Your task to perform on an android device: Go to Maps Image 0: 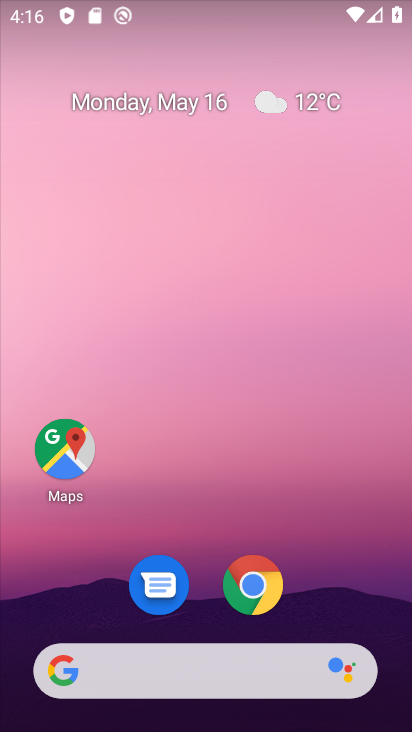
Step 0: click (67, 450)
Your task to perform on an android device: Go to Maps Image 1: 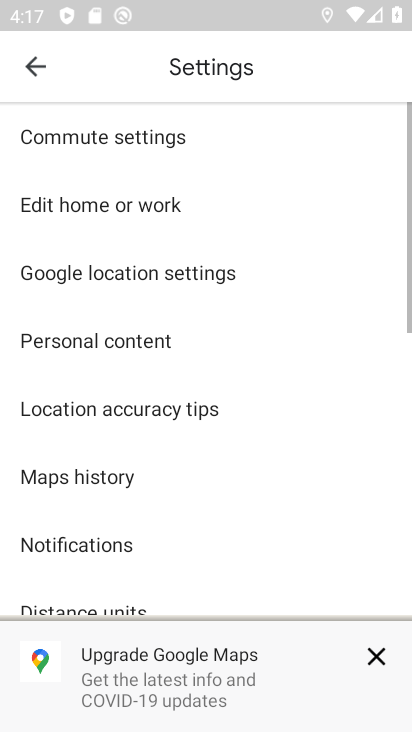
Step 1: click (42, 54)
Your task to perform on an android device: Go to Maps Image 2: 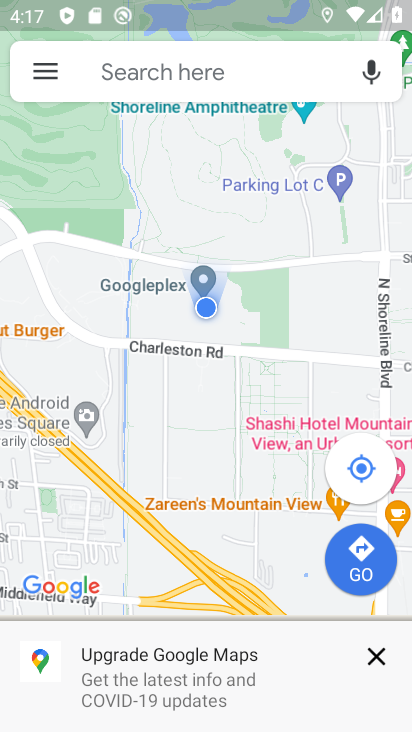
Step 2: task complete